Your task to perform on an android device: Go to privacy settings Image 0: 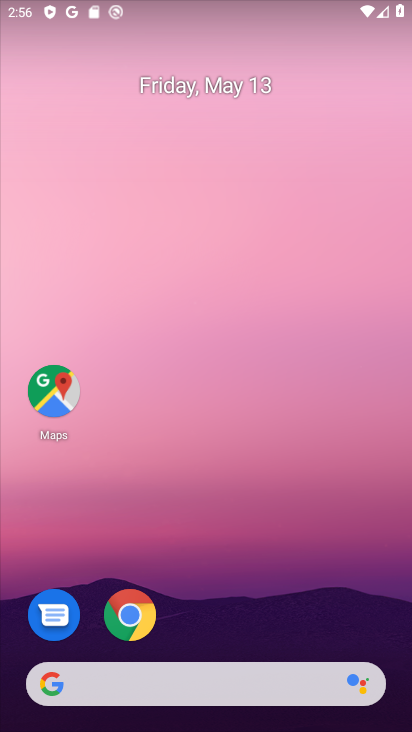
Step 0: drag from (223, 677) to (312, 174)
Your task to perform on an android device: Go to privacy settings Image 1: 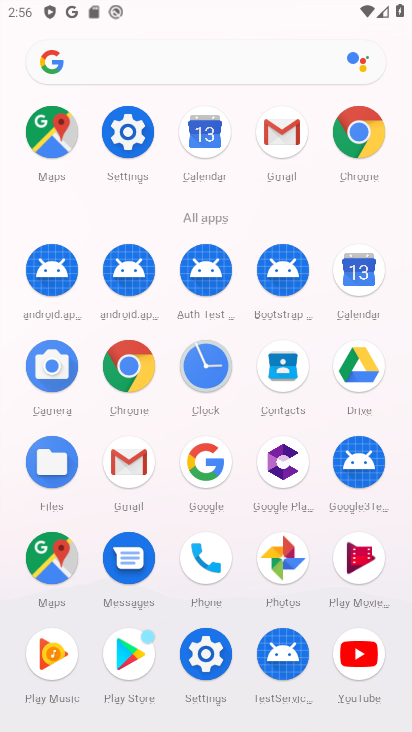
Step 1: click (119, 131)
Your task to perform on an android device: Go to privacy settings Image 2: 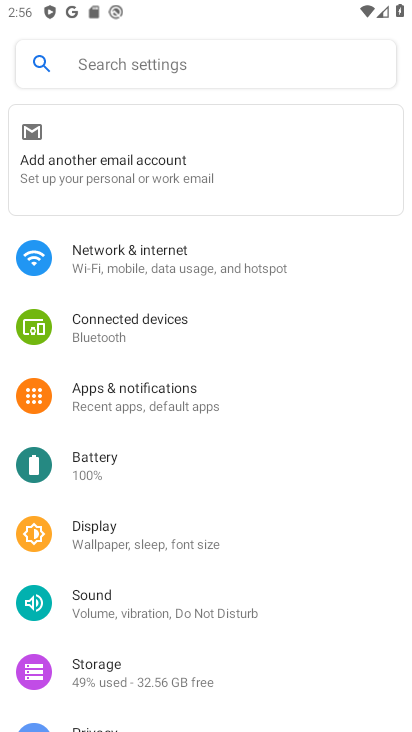
Step 2: drag from (236, 349) to (276, 173)
Your task to perform on an android device: Go to privacy settings Image 3: 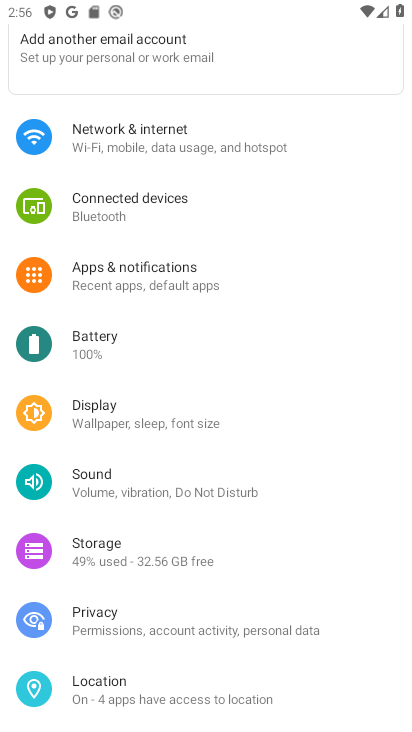
Step 3: click (123, 623)
Your task to perform on an android device: Go to privacy settings Image 4: 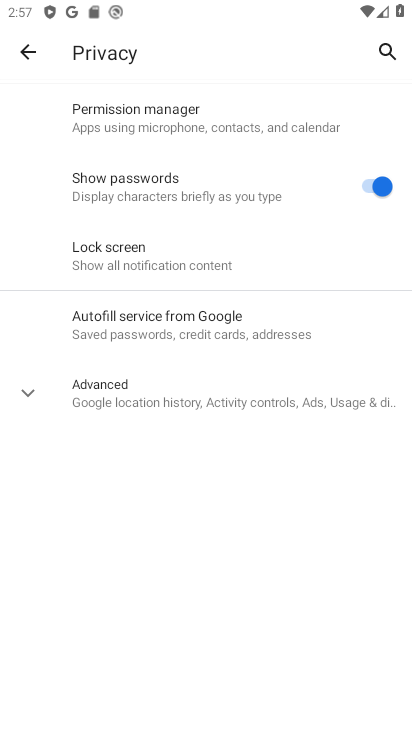
Step 4: task complete